Your task to perform on an android device: check data usage Image 0: 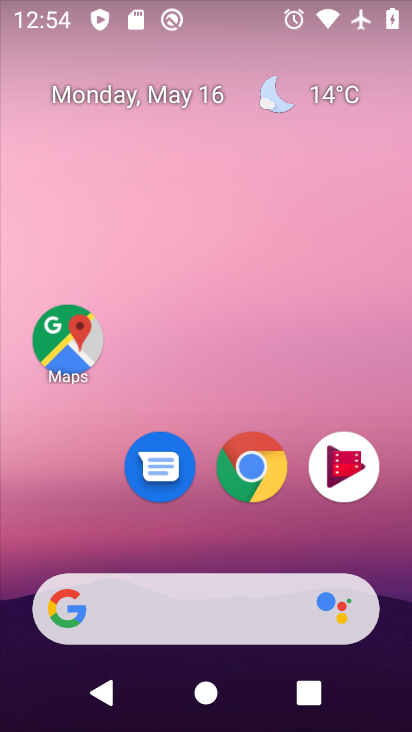
Step 0: drag from (225, 532) to (240, 173)
Your task to perform on an android device: check data usage Image 1: 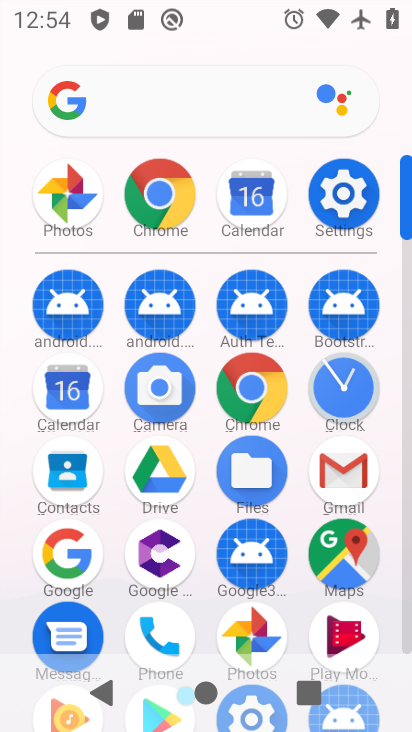
Step 1: click (352, 173)
Your task to perform on an android device: check data usage Image 2: 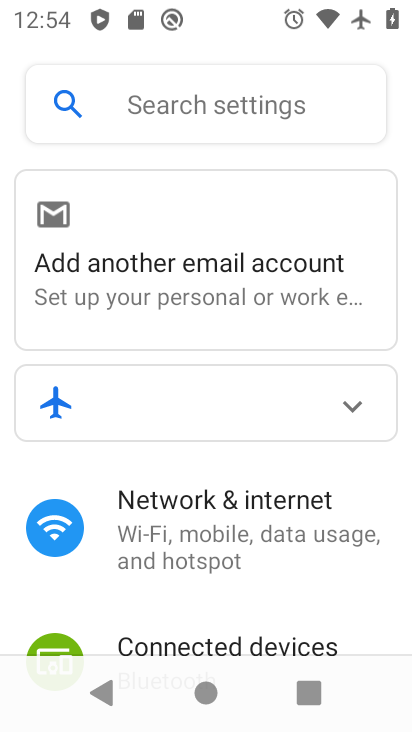
Step 2: click (198, 506)
Your task to perform on an android device: check data usage Image 3: 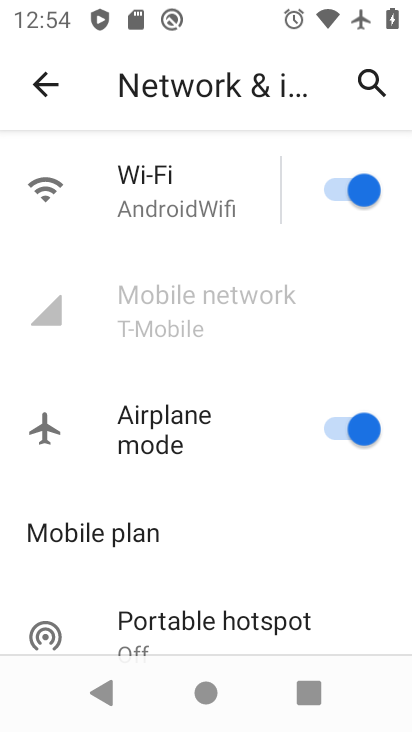
Step 3: click (224, 288)
Your task to perform on an android device: check data usage Image 4: 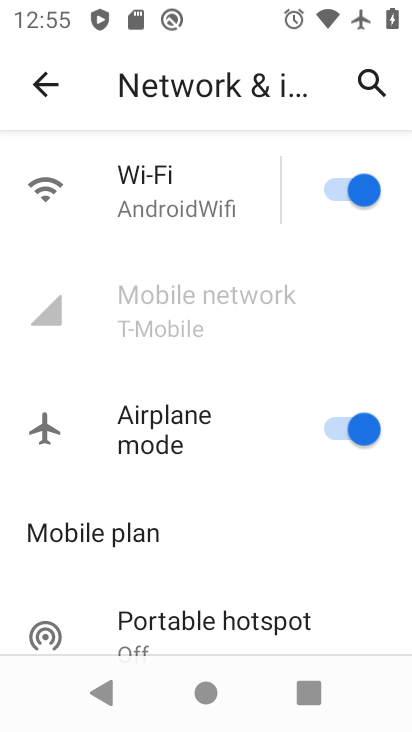
Step 4: task complete